Your task to perform on an android device: Open calendar and show me the first week of next month Image 0: 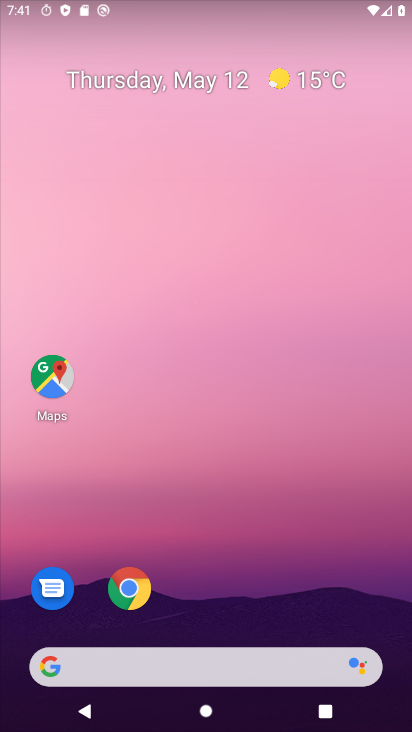
Step 0: drag from (228, 555) to (217, 283)
Your task to perform on an android device: Open calendar and show me the first week of next month Image 1: 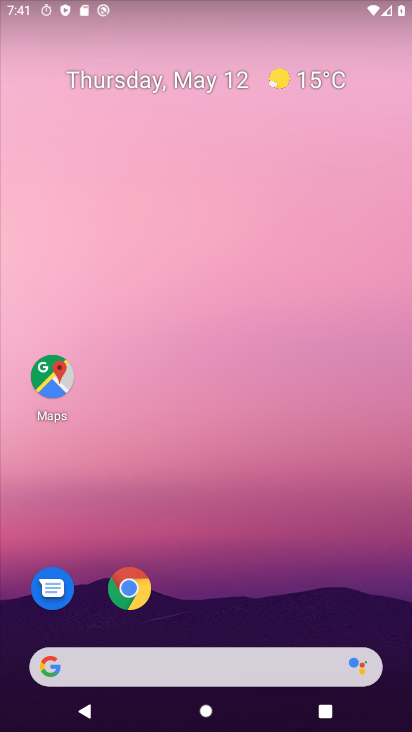
Step 1: drag from (235, 612) to (272, 186)
Your task to perform on an android device: Open calendar and show me the first week of next month Image 2: 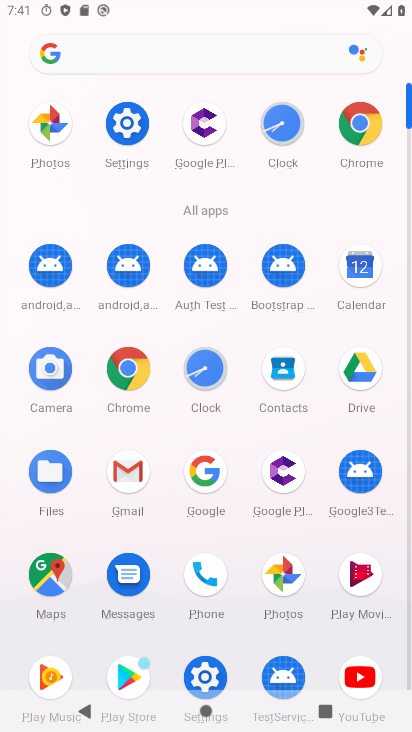
Step 2: click (367, 261)
Your task to perform on an android device: Open calendar and show me the first week of next month Image 3: 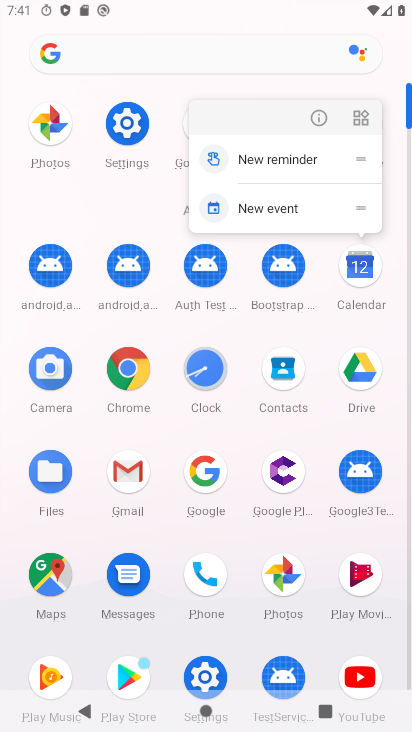
Step 3: click (366, 262)
Your task to perform on an android device: Open calendar and show me the first week of next month Image 4: 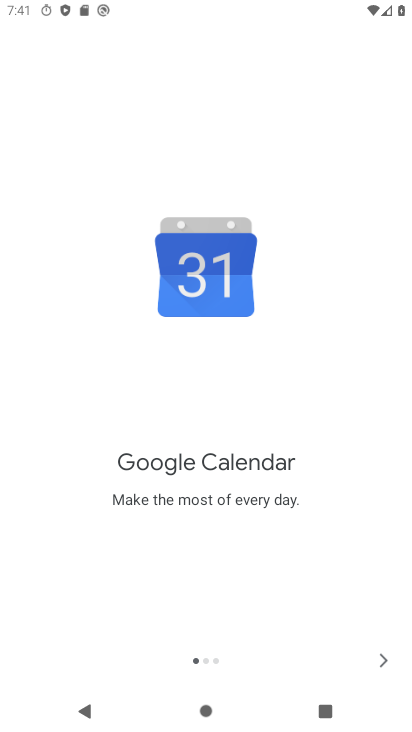
Step 4: click (381, 658)
Your task to perform on an android device: Open calendar and show me the first week of next month Image 5: 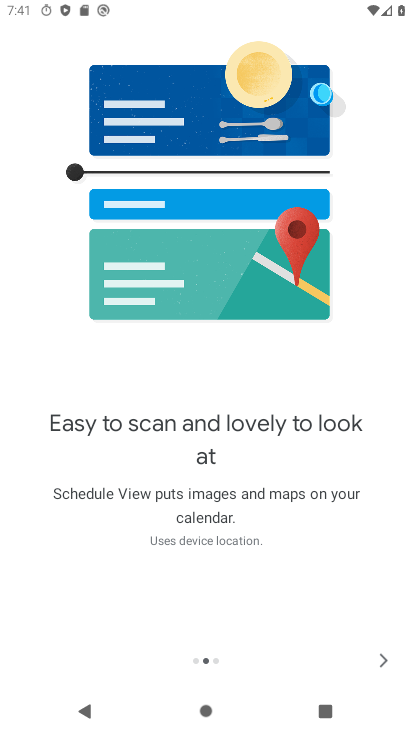
Step 5: click (379, 658)
Your task to perform on an android device: Open calendar and show me the first week of next month Image 6: 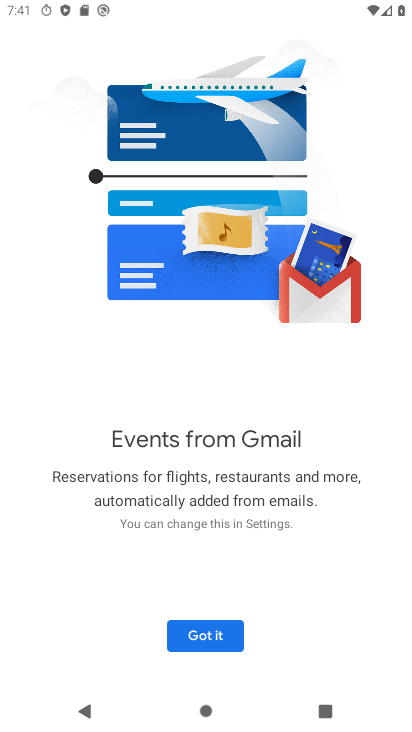
Step 6: click (375, 655)
Your task to perform on an android device: Open calendar and show me the first week of next month Image 7: 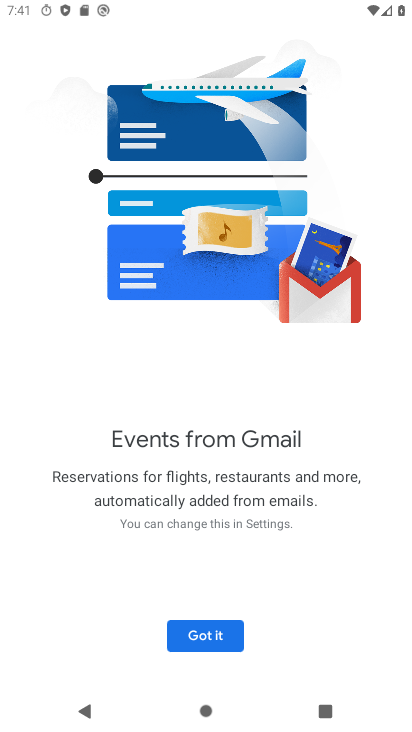
Step 7: click (194, 647)
Your task to perform on an android device: Open calendar and show me the first week of next month Image 8: 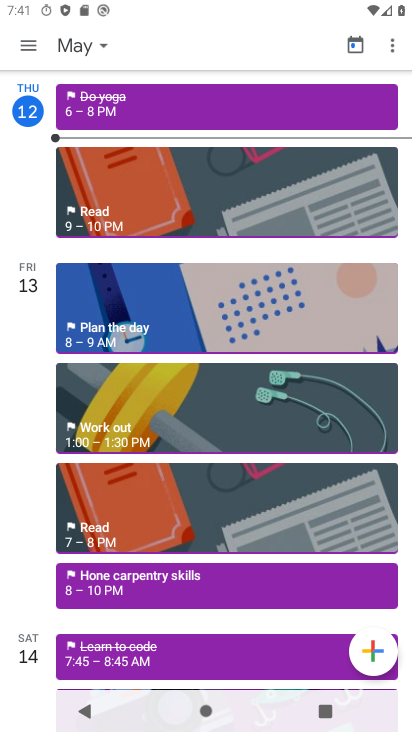
Step 8: click (85, 45)
Your task to perform on an android device: Open calendar and show me the first week of next month Image 9: 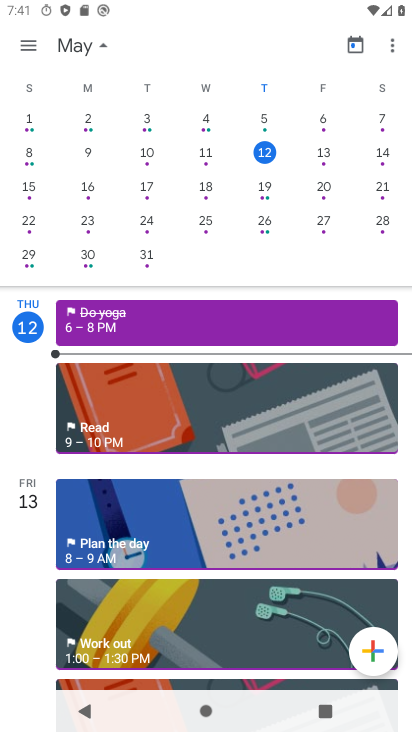
Step 9: drag from (397, 238) to (35, 187)
Your task to perform on an android device: Open calendar and show me the first week of next month Image 10: 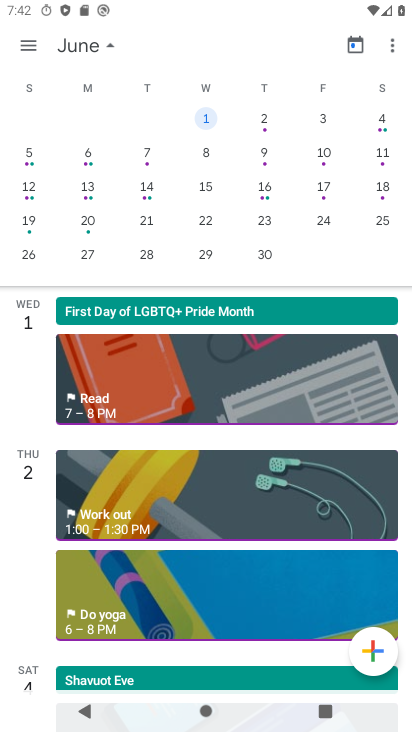
Step 10: click (207, 124)
Your task to perform on an android device: Open calendar and show me the first week of next month Image 11: 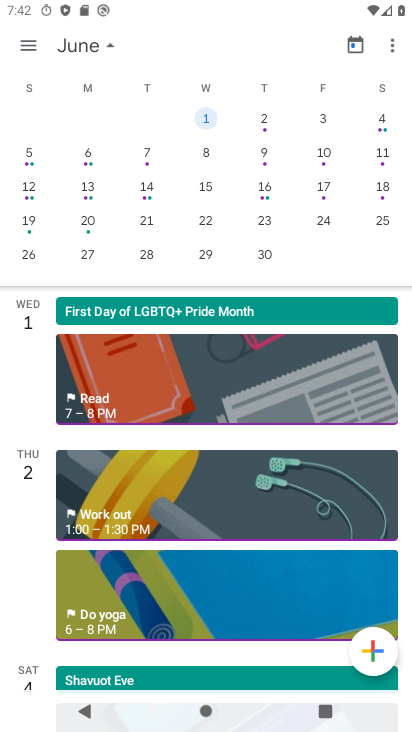
Step 11: click (258, 118)
Your task to perform on an android device: Open calendar and show me the first week of next month Image 12: 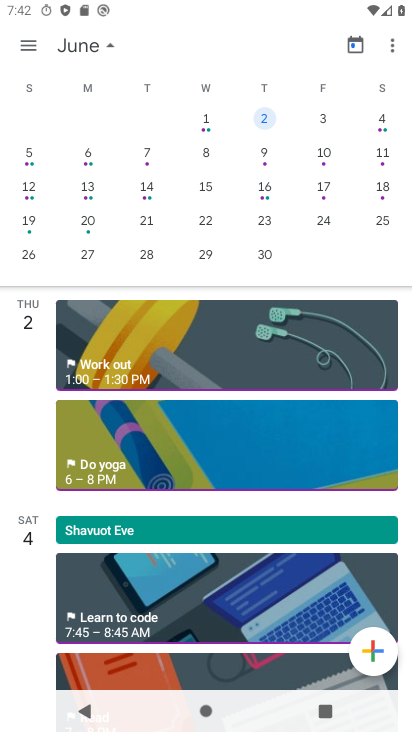
Step 12: click (38, 42)
Your task to perform on an android device: Open calendar and show me the first week of next month Image 13: 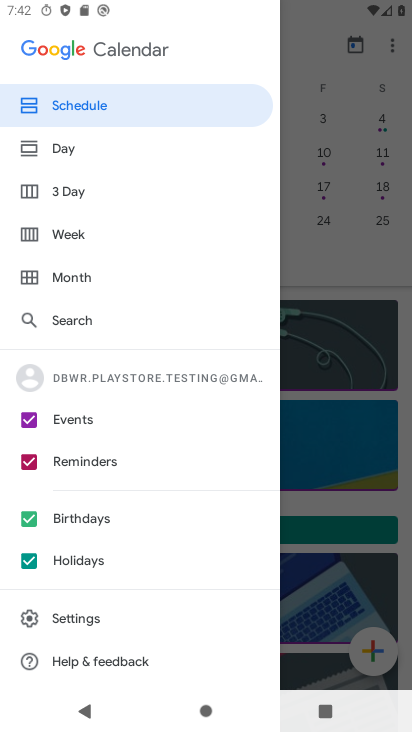
Step 13: click (72, 234)
Your task to perform on an android device: Open calendar and show me the first week of next month Image 14: 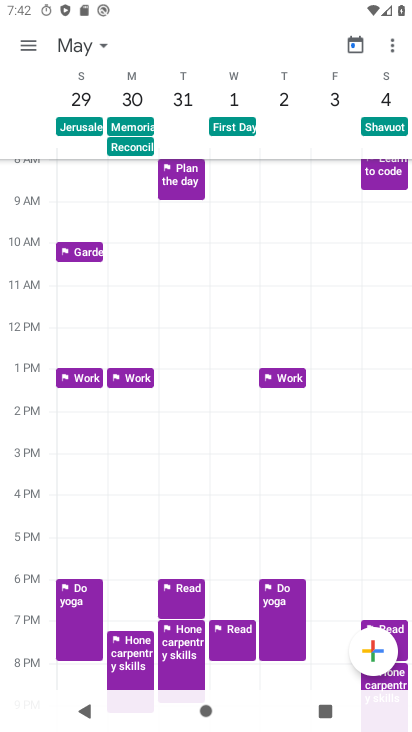
Step 14: task complete